Your task to perform on an android device: Open Wikipedia Image 0: 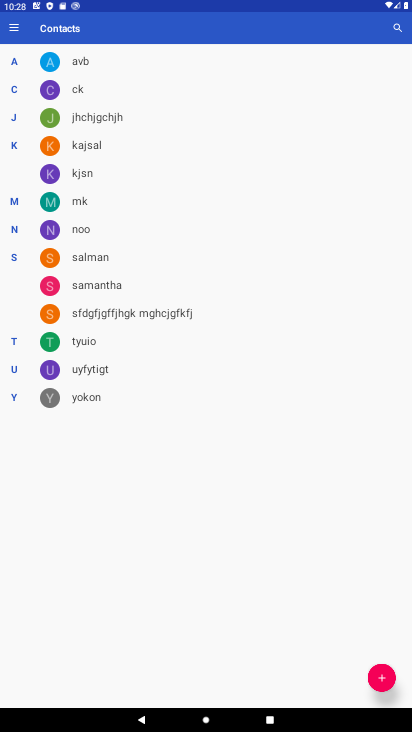
Step 0: press home button
Your task to perform on an android device: Open Wikipedia Image 1: 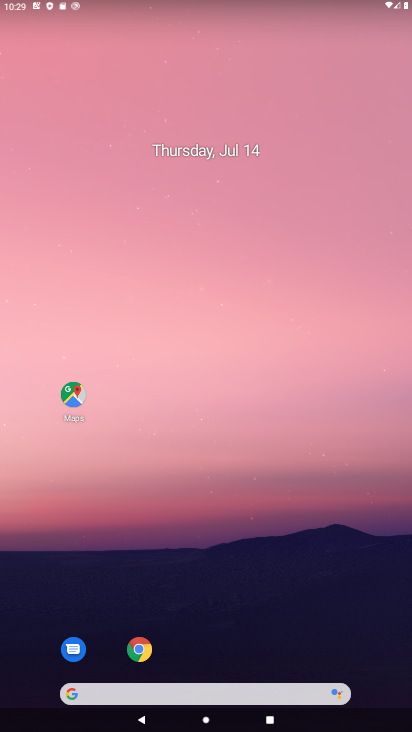
Step 1: click (153, 650)
Your task to perform on an android device: Open Wikipedia Image 2: 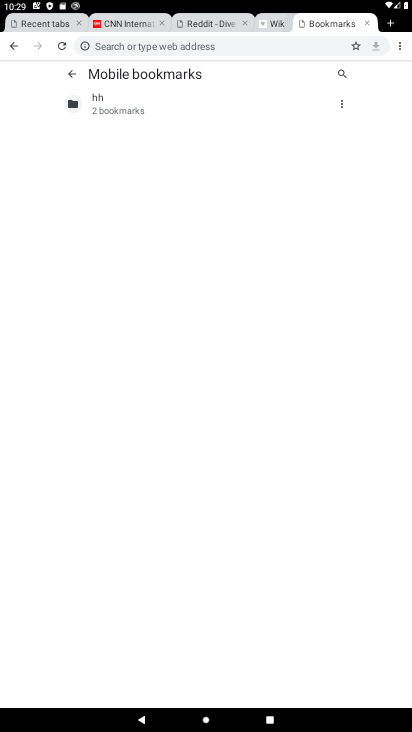
Step 2: click (383, 18)
Your task to perform on an android device: Open Wikipedia Image 3: 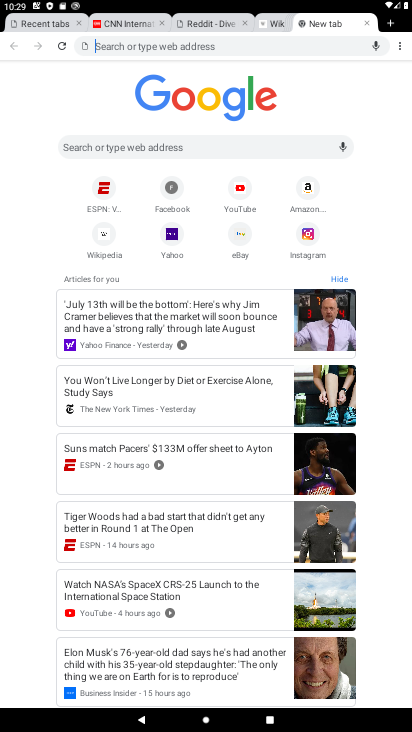
Step 3: click (101, 243)
Your task to perform on an android device: Open Wikipedia Image 4: 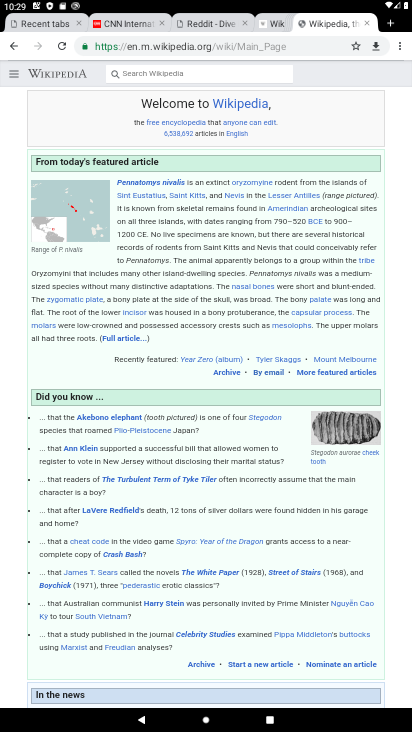
Step 4: task complete